Your task to perform on an android device: What's the weather today? Image 0: 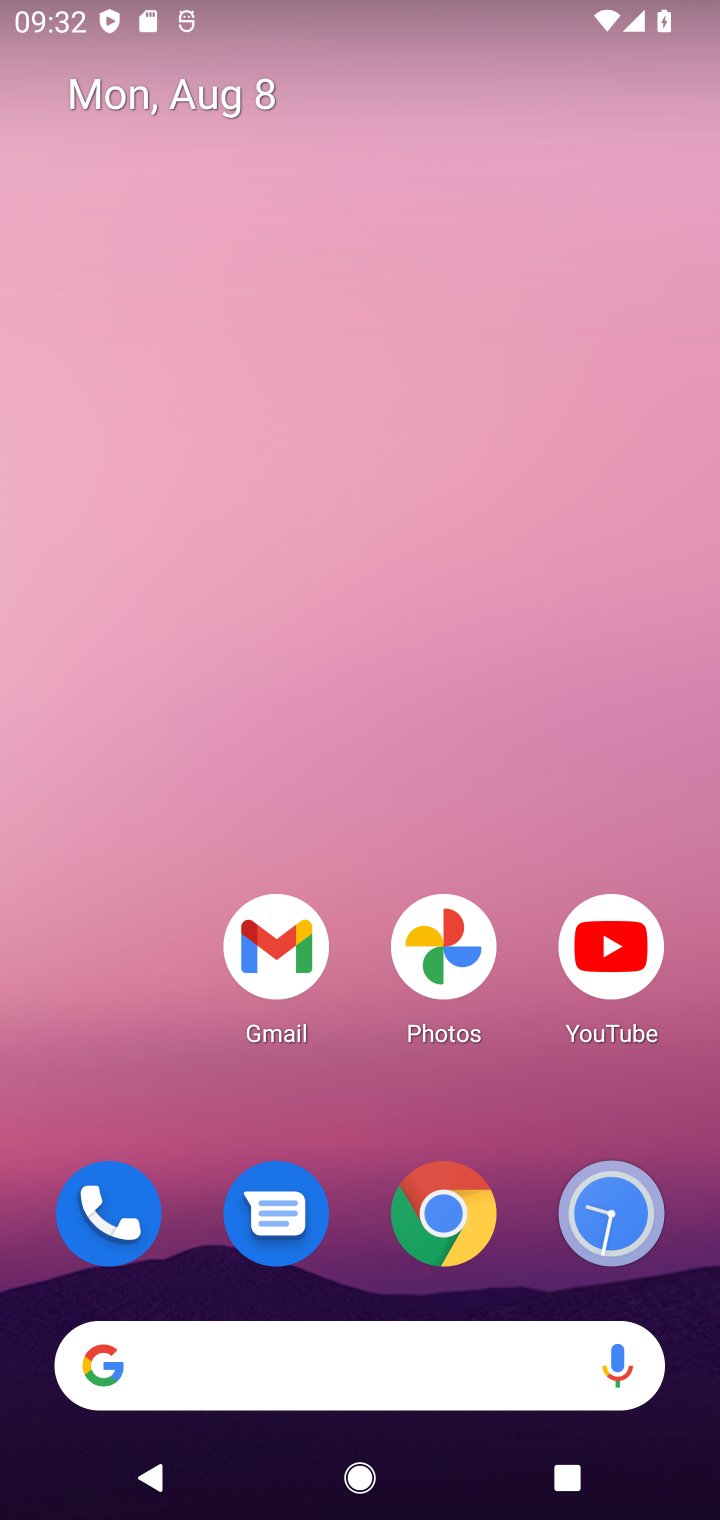
Step 0: drag from (384, 1080) to (364, 197)
Your task to perform on an android device: What's the weather today? Image 1: 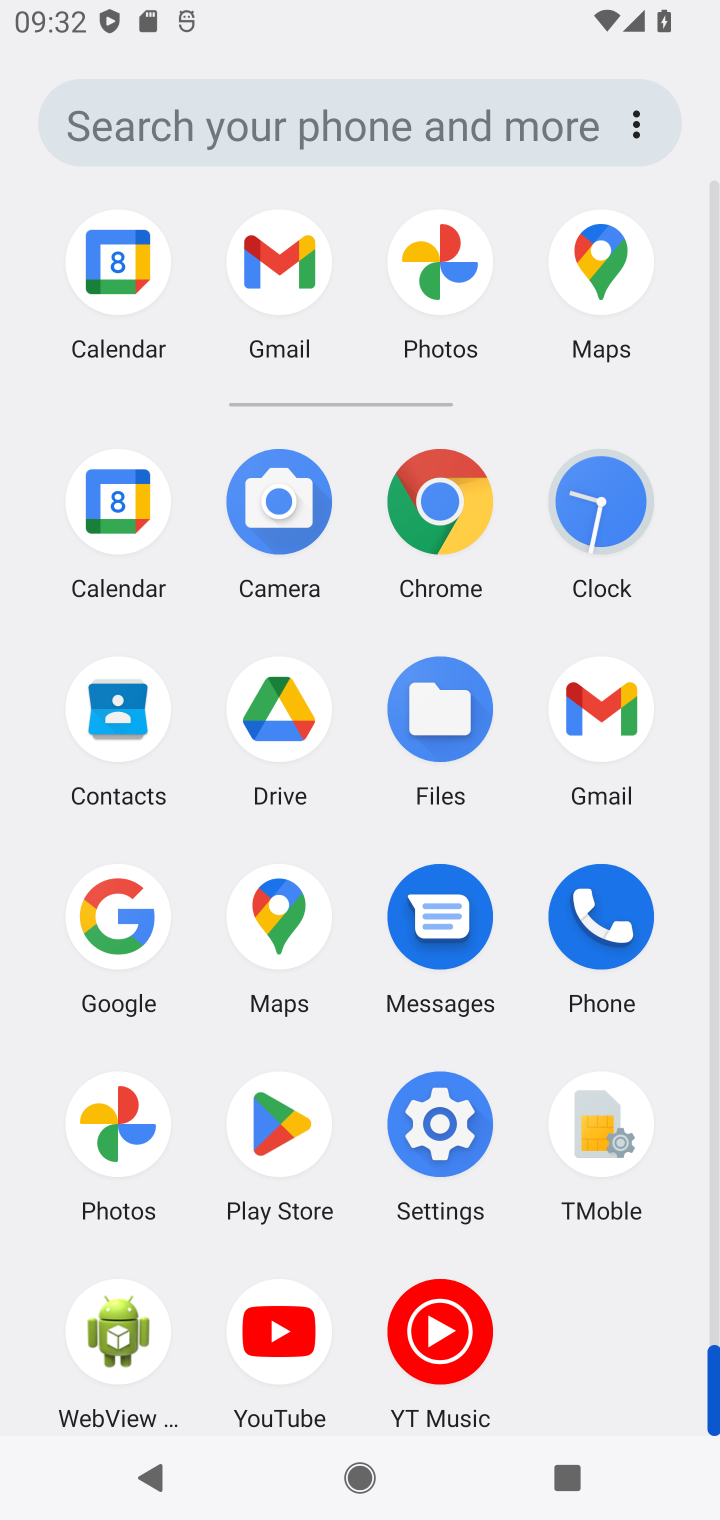
Step 1: click (443, 526)
Your task to perform on an android device: What's the weather today? Image 2: 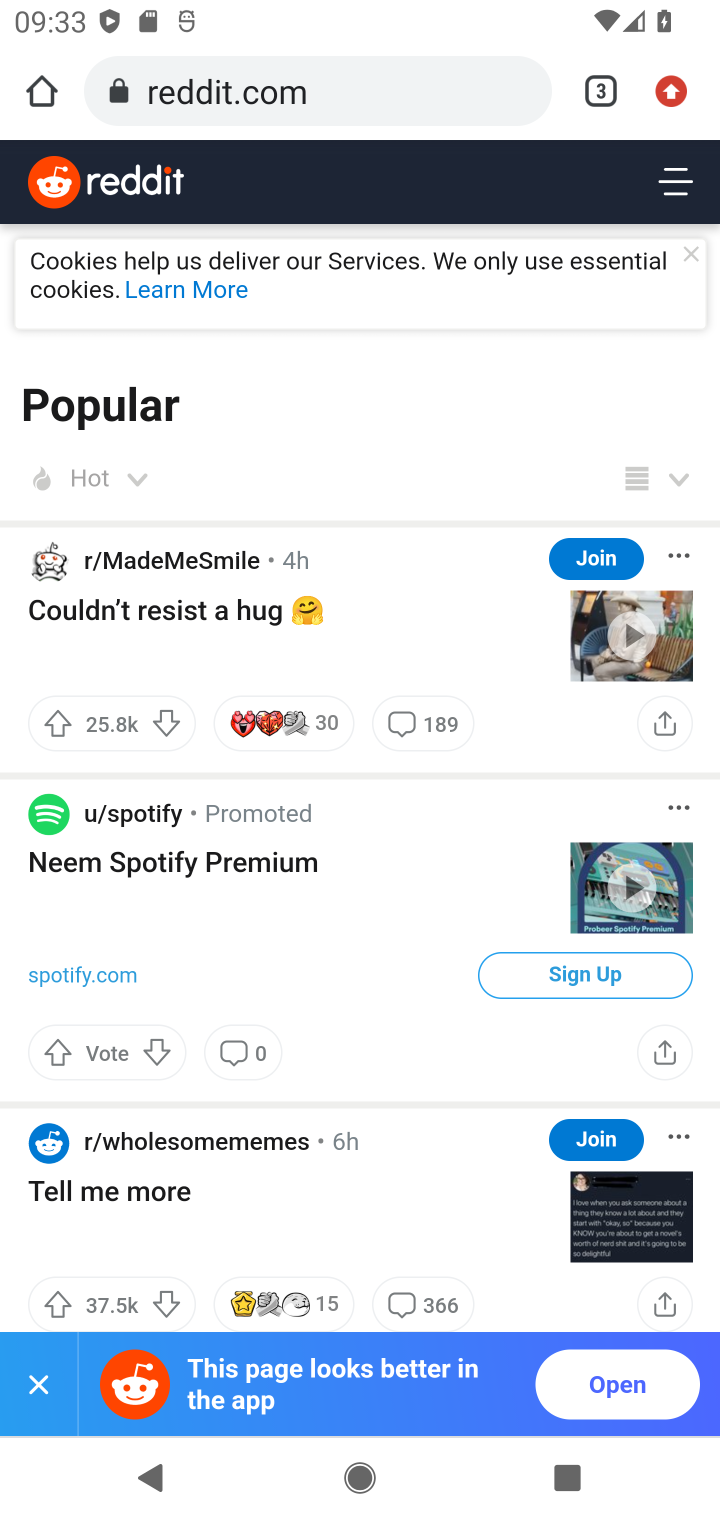
Step 2: click (608, 88)
Your task to perform on an android device: What's the weather today? Image 3: 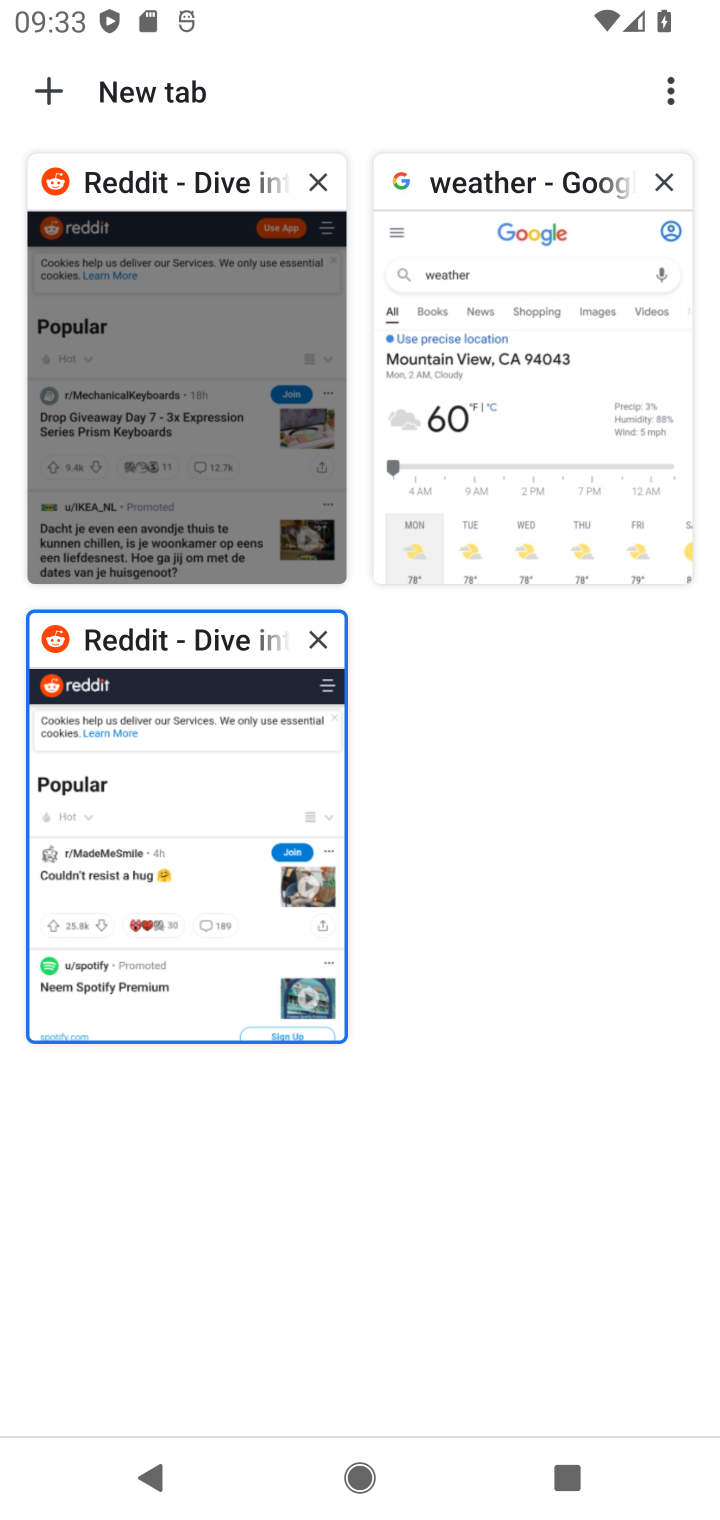
Step 3: click (536, 335)
Your task to perform on an android device: What's the weather today? Image 4: 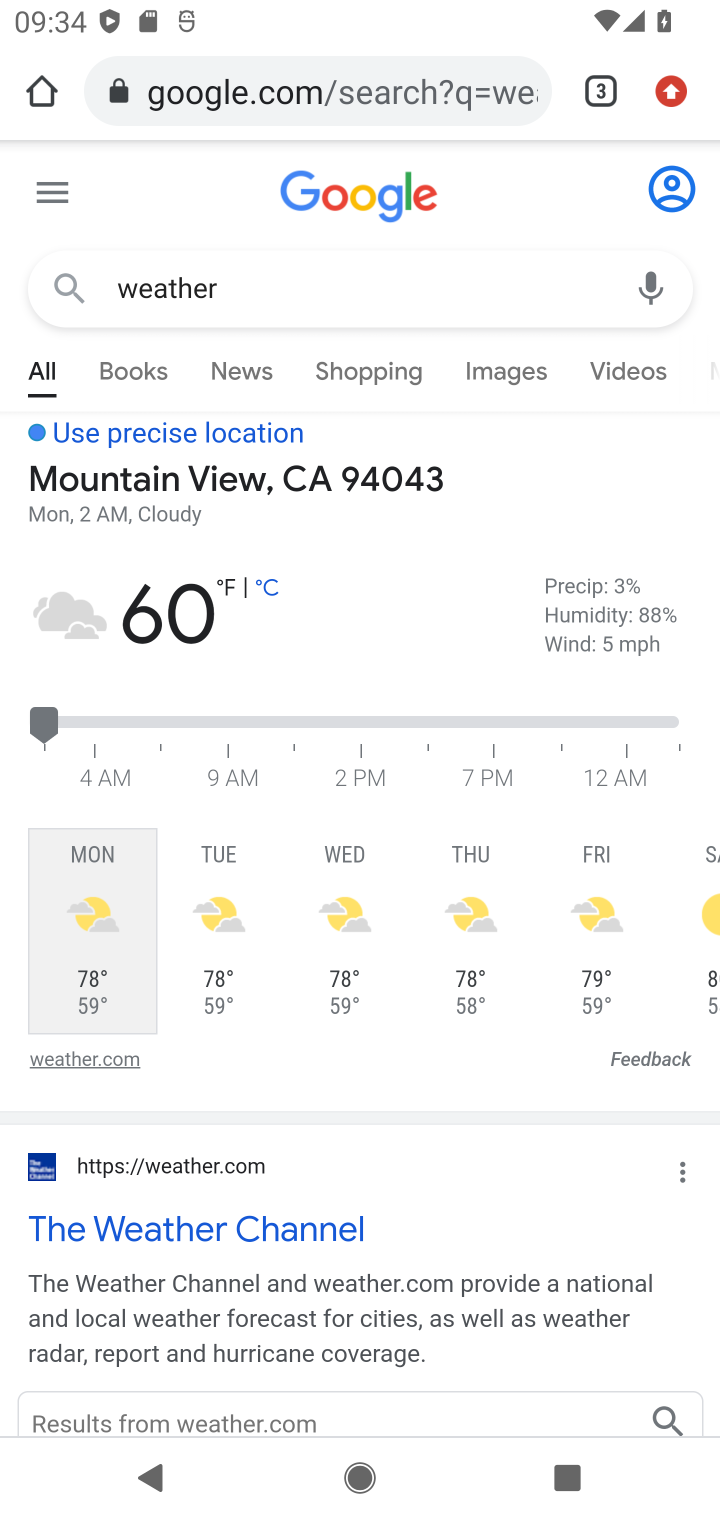
Step 4: task complete